Your task to perform on an android device: Open Google Maps Image 0: 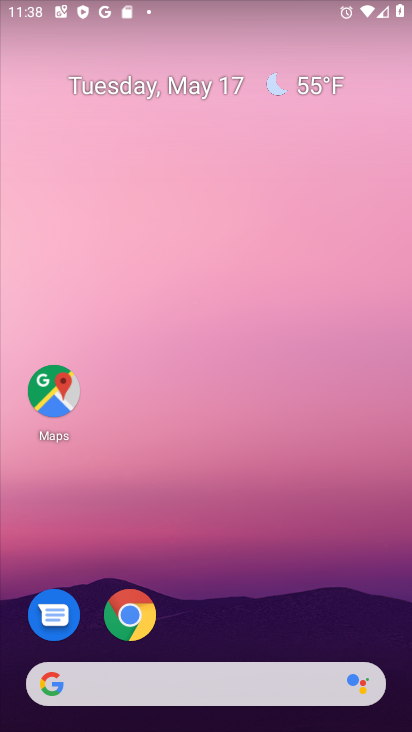
Step 0: click (50, 391)
Your task to perform on an android device: Open Google Maps Image 1: 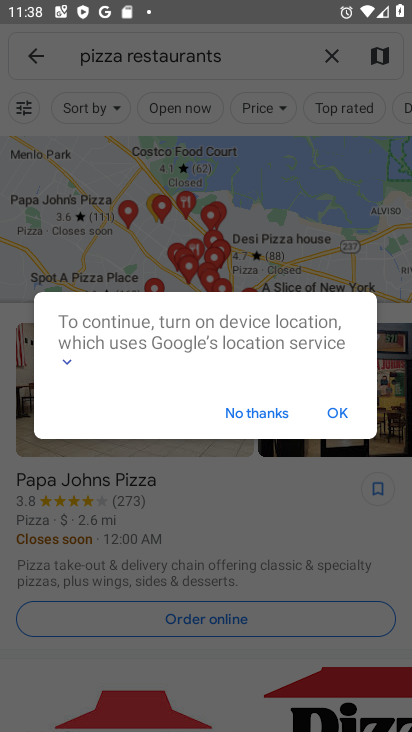
Step 1: task complete